Your task to perform on an android device: turn pop-ups off in chrome Image 0: 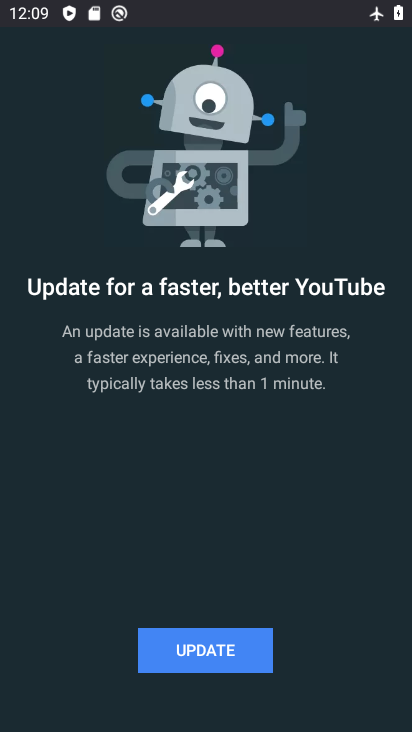
Step 0: press home button
Your task to perform on an android device: turn pop-ups off in chrome Image 1: 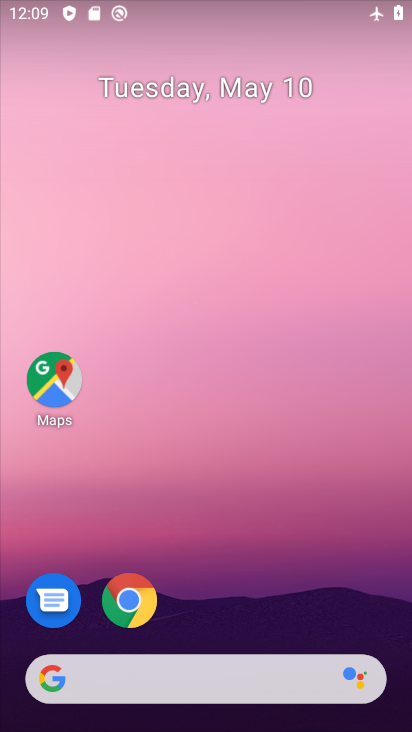
Step 1: drag from (323, 529) to (346, 55)
Your task to perform on an android device: turn pop-ups off in chrome Image 2: 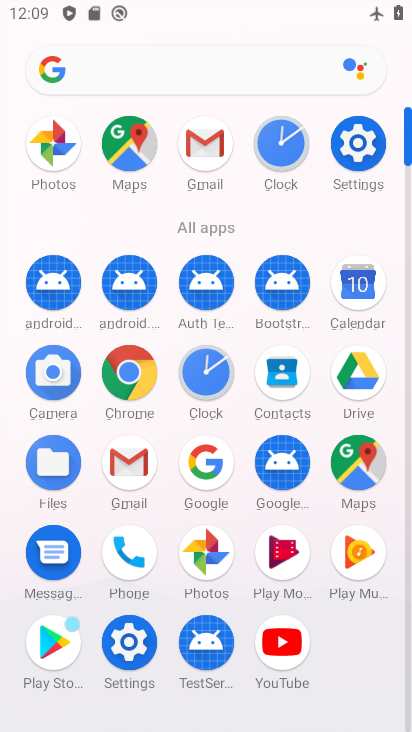
Step 2: click (135, 377)
Your task to perform on an android device: turn pop-ups off in chrome Image 3: 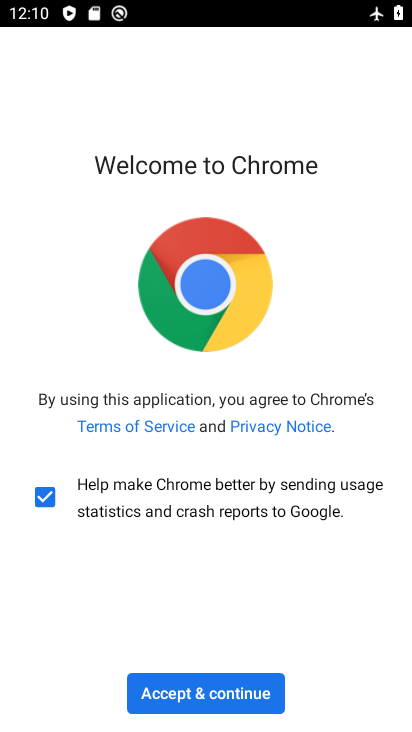
Step 3: click (163, 672)
Your task to perform on an android device: turn pop-ups off in chrome Image 4: 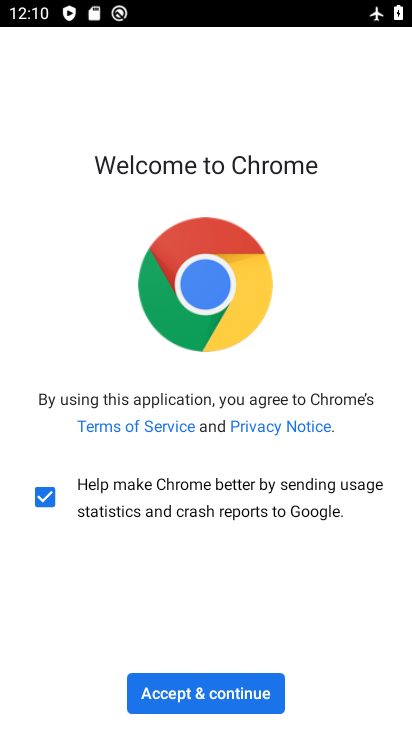
Step 4: click (163, 701)
Your task to perform on an android device: turn pop-ups off in chrome Image 5: 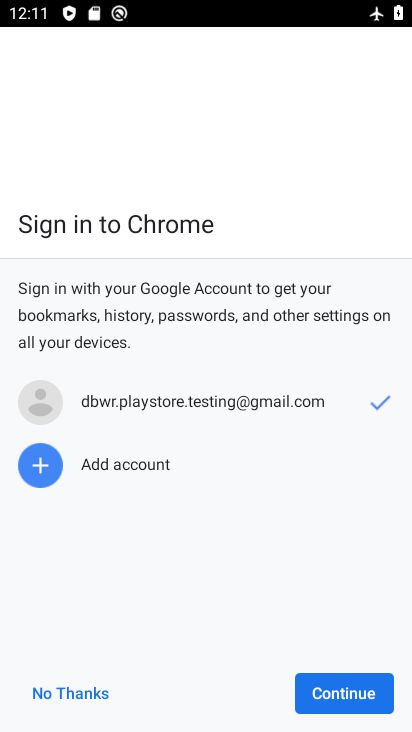
Step 5: click (339, 715)
Your task to perform on an android device: turn pop-ups off in chrome Image 6: 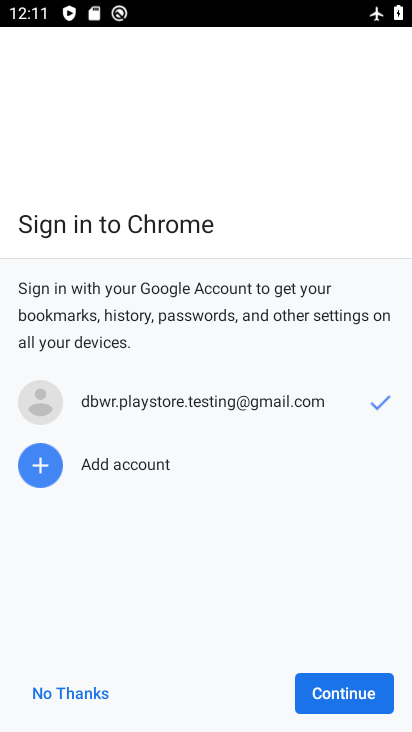
Step 6: click (346, 686)
Your task to perform on an android device: turn pop-ups off in chrome Image 7: 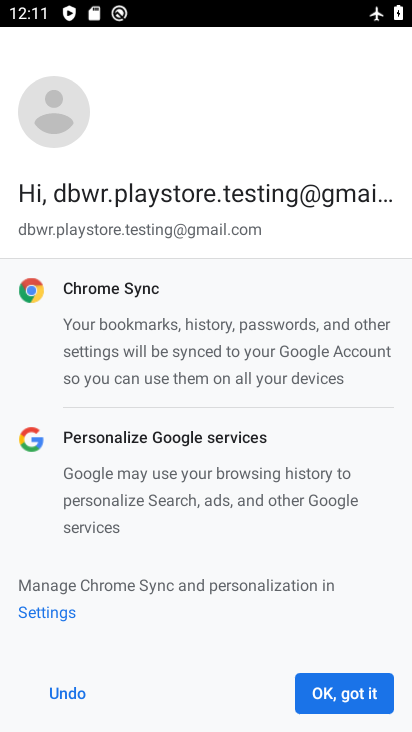
Step 7: click (380, 688)
Your task to perform on an android device: turn pop-ups off in chrome Image 8: 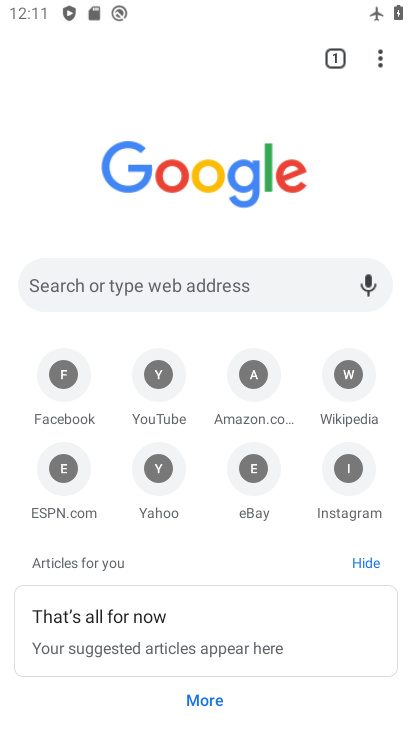
Step 8: click (383, 63)
Your task to perform on an android device: turn pop-ups off in chrome Image 9: 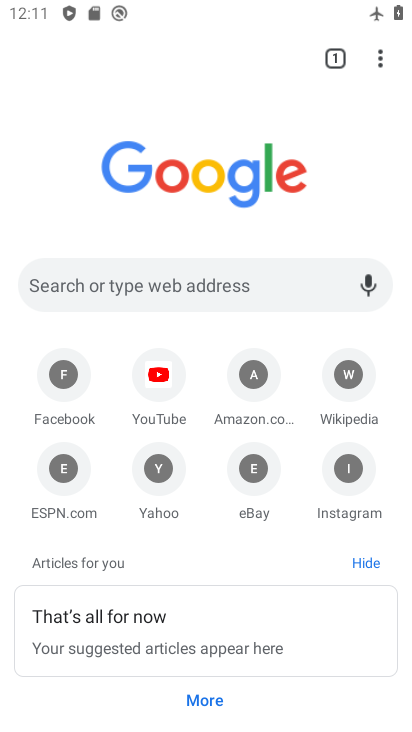
Step 9: click (382, 61)
Your task to perform on an android device: turn pop-ups off in chrome Image 10: 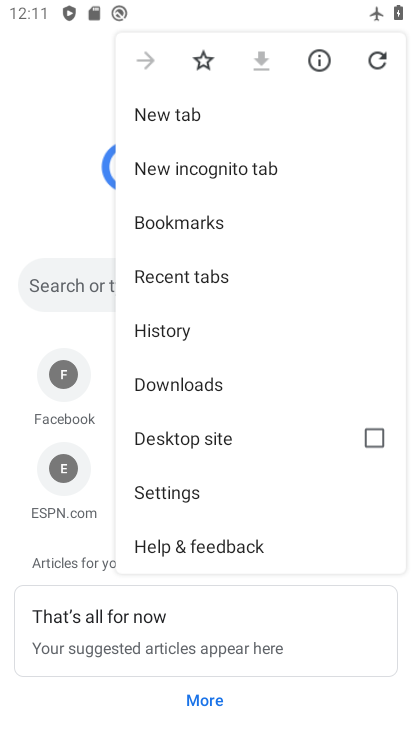
Step 10: drag from (233, 490) to (253, 121)
Your task to perform on an android device: turn pop-ups off in chrome Image 11: 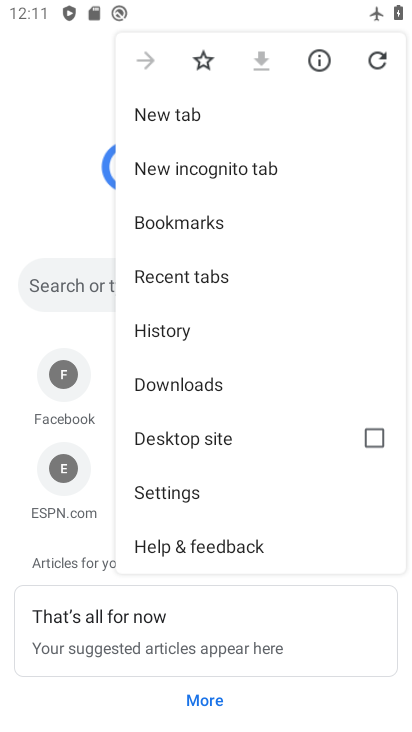
Step 11: click (193, 489)
Your task to perform on an android device: turn pop-ups off in chrome Image 12: 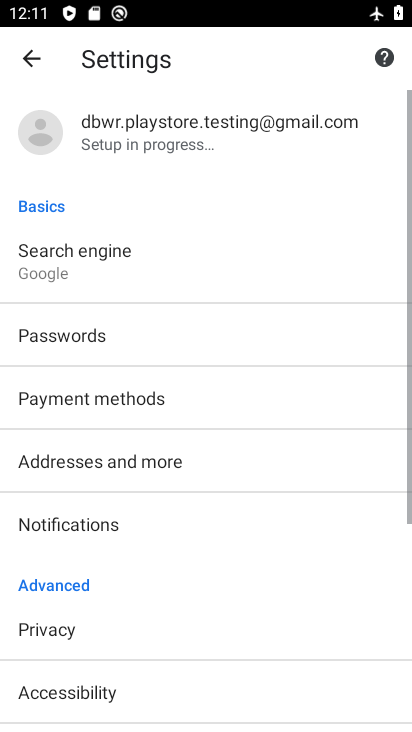
Step 12: drag from (193, 489) to (240, 226)
Your task to perform on an android device: turn pop-ups off in chrome Image 13: 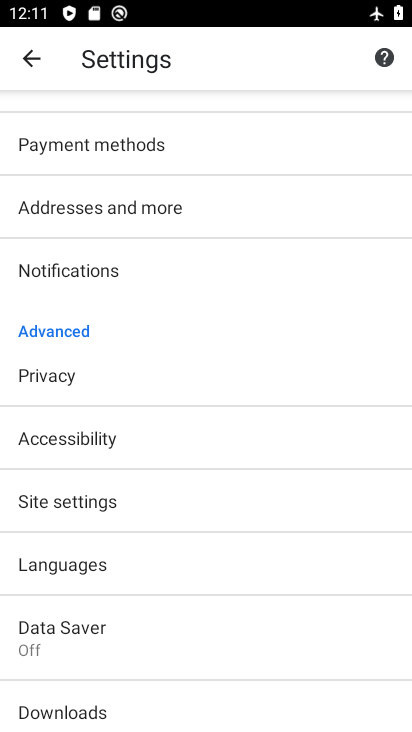
Step 13: click (105, 504)
Your task to perform on an android device: turn pop-ups off in chrome Image 14: 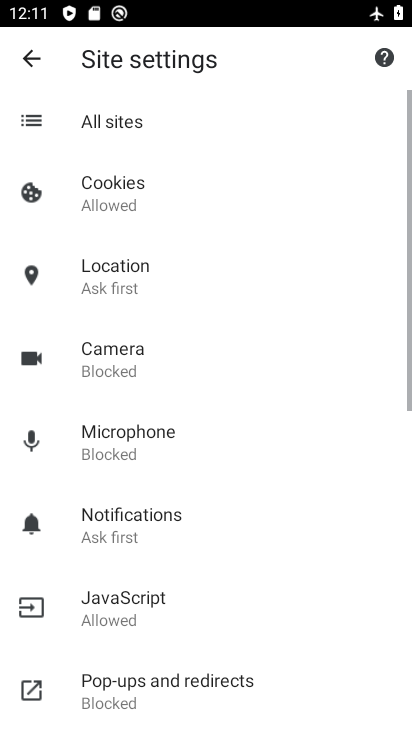
Step 14: drag from (141, 531) to (137, 361)
Your task to perform on an android device: turn pop-ups off in chrome Image 15: 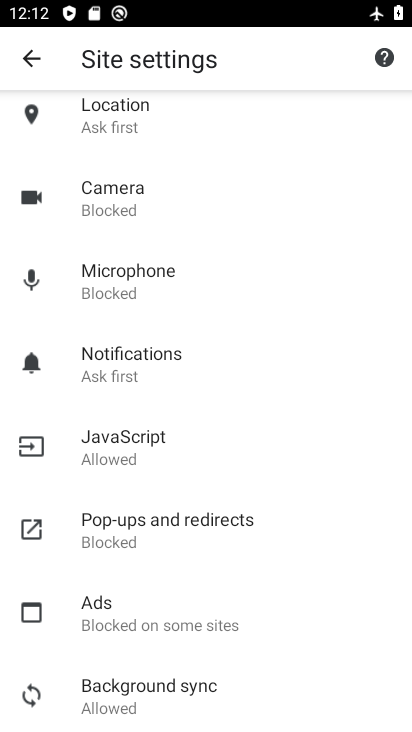
Step 15: click (165, 535)
Your task to perform on an android device: turn pop-ups off in chrome Image 16: 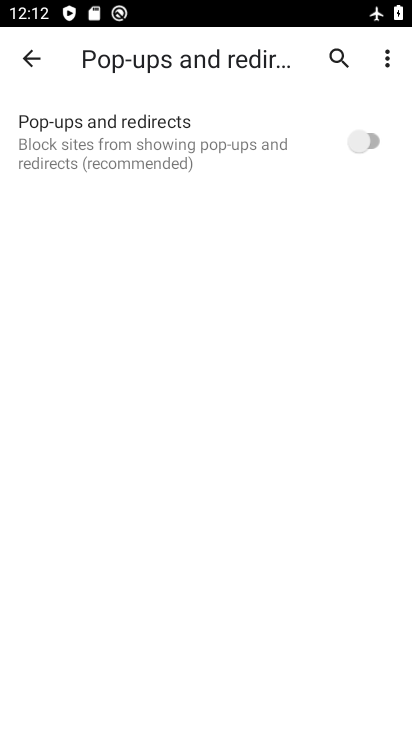
Step 16: task complete